Your task to perform on an android device: add a label to a message in the gmail app Image 0: 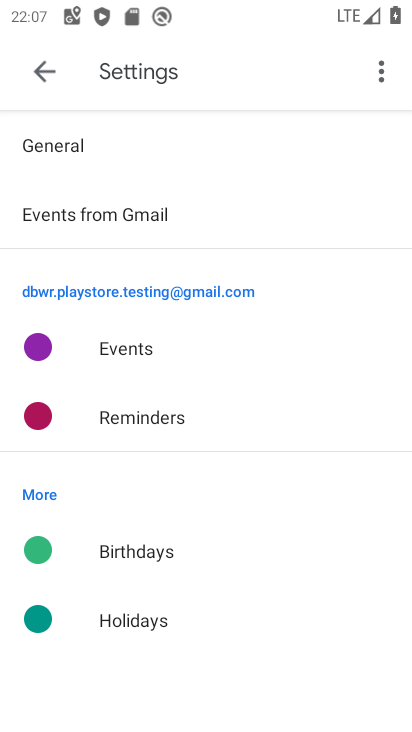
Step 0: press home button
Your task to perform on an android device: add a label to a message in the gmail app Image 1: 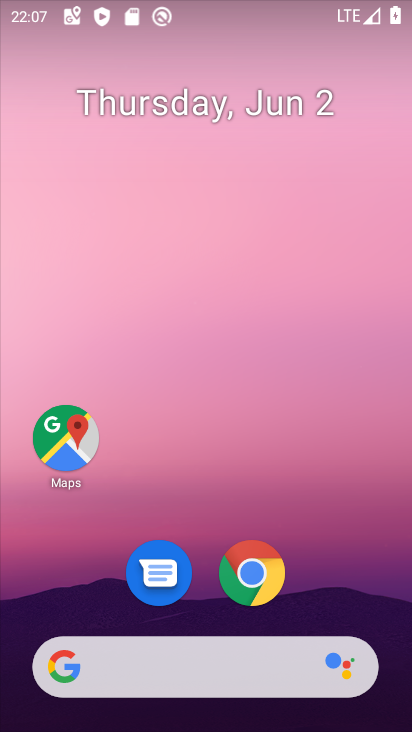
Step 1: drag from (319, 584) to (328, 269)
Your task to perform on an android device: add a label to a message in the gmail app Image 2: 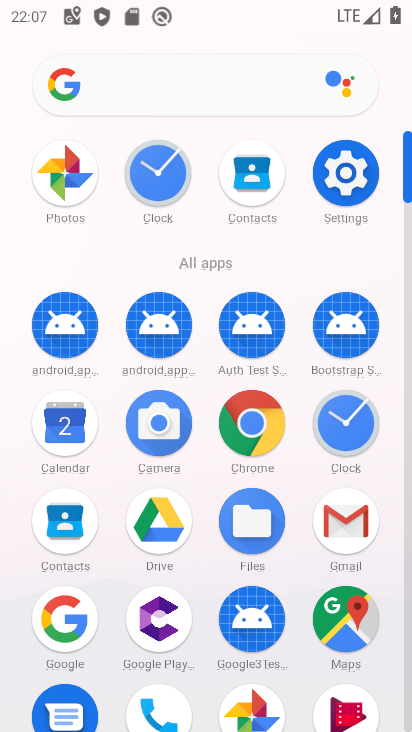
Step 2: click (350, 522)
Your task to perform on an android device: add a label to a message in the gmail app Image 3: 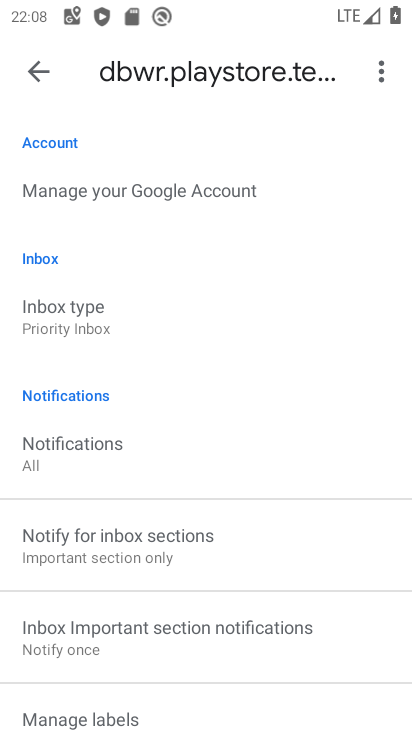
Step 3: press home button
Your task to perform on an android device: add a label to a message in the gmail app Image 4: 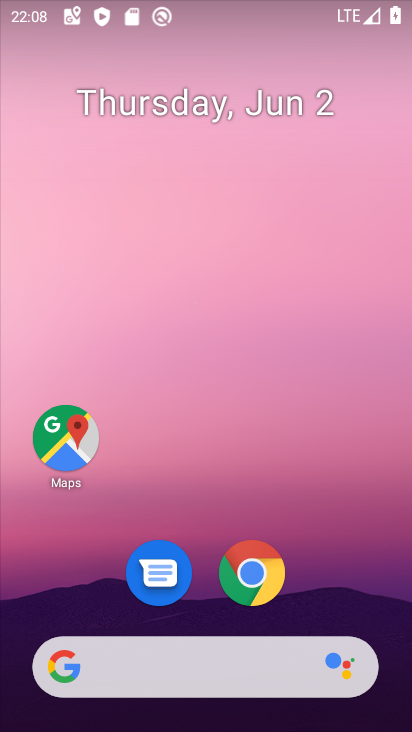
Step 4: drag from (318, 548) to (280, 270)
Your task to perform on an android device: add a label to a message in the gmail app Image 5: 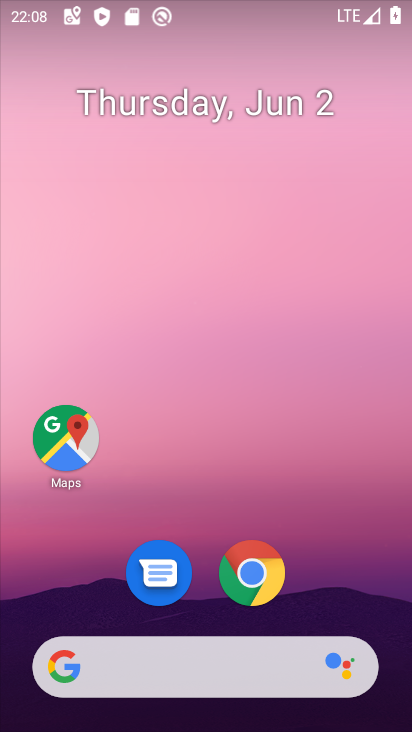
Step 5: drag from (354, 590) to (385, 160)
Your task to perform on an android device: add a label to a message in the gmail app Image 6: 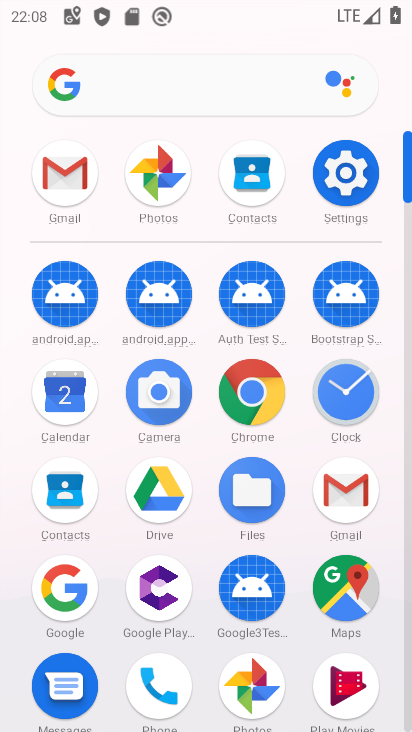
Step 6: click (345, 471)
Your task to perform on an android device: add a label to a message in the gmail app Image 7: 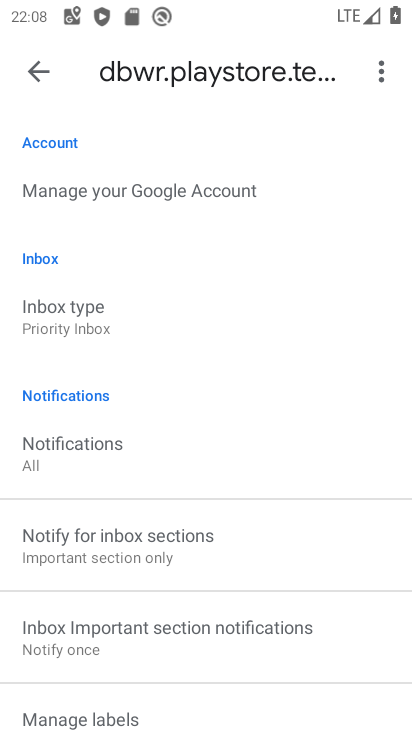
Step 7: click (33, 69)
Your task to perform on an android device: add a label to a message in the gmail app Image 8: 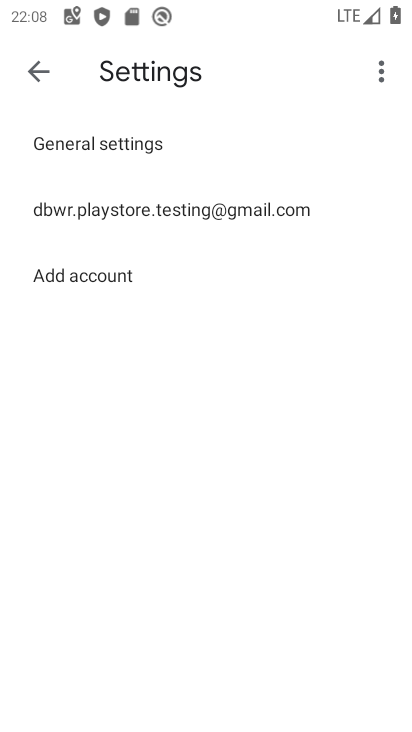
Step 8: click (33, 69)
Your task to perform on an android device: add a label to a message in the gmail app Image 9: 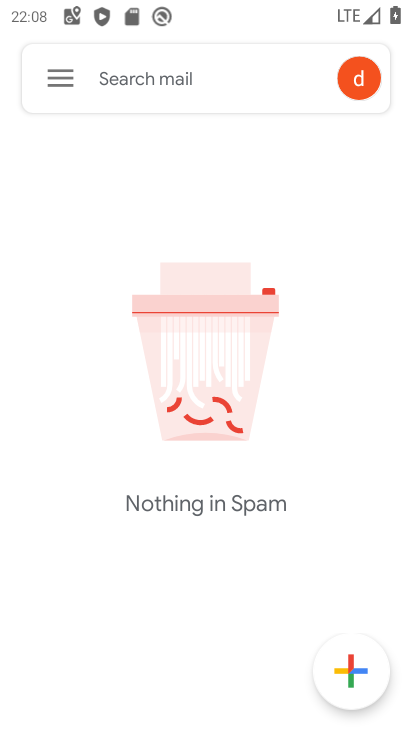
Step 9: click (56, 73)
Your task to perform on an android device: add a label to a message in the gmail app Image 10: 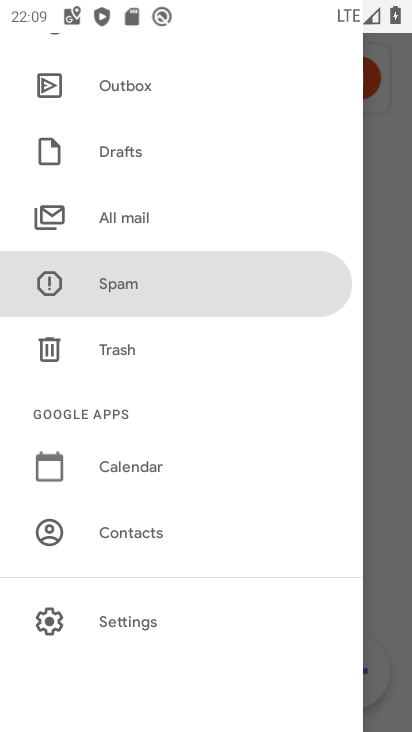
Step 10: click (156, 217)
Your task to perform on an android device: add a label to a message in the gmail app Image 11: 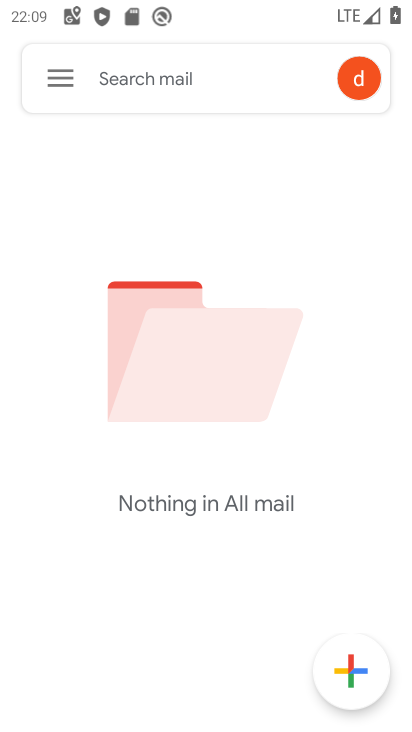
Step 11: task complete